Your task to perform on an android device: turn off smart reply in the gmail app Image 0: 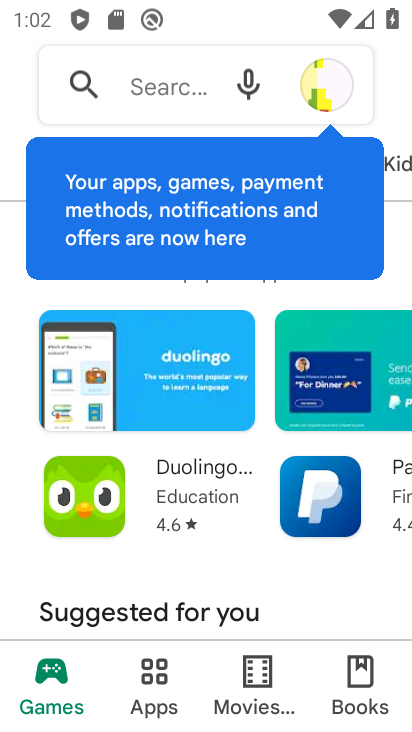
Step 0: press home button
Your task to perform on an android device: turn off smart reply in the gmail app Image 1: 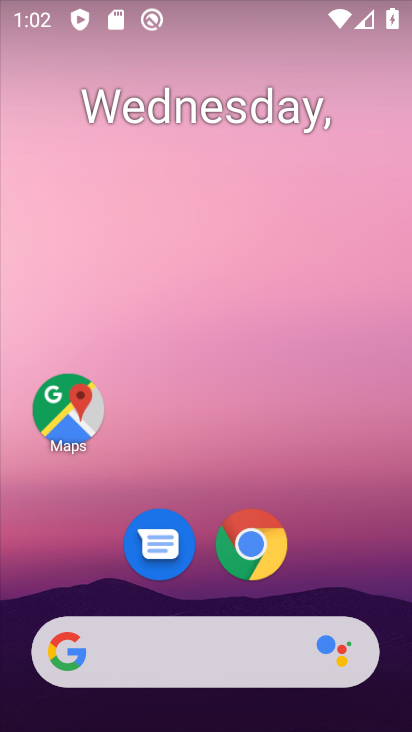
Step 1: drag from (339, 573) to (308, 6)
Your task to perform on an android device: turn off smart reply in the gmail app Image 2: 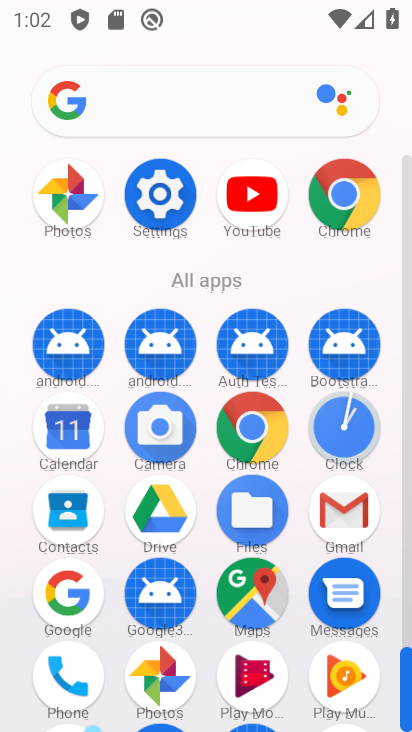
Step 2: click (341, 514)
Your task to perform on an android device: turn off smart reply in the gmail app Image 3: 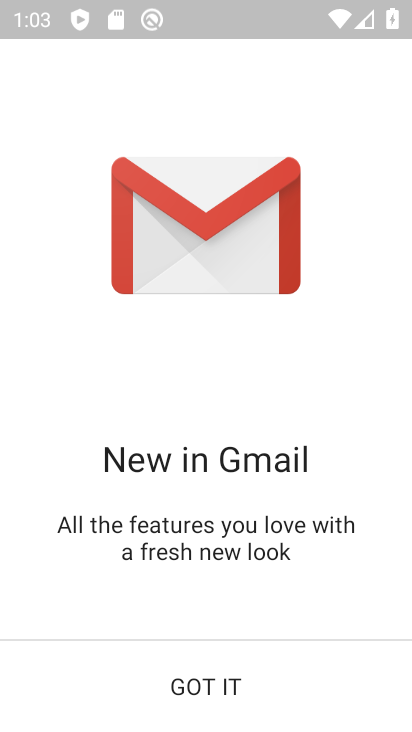
Step 3: click (114, 690)
Your task to perform on an android device: turn off smart reply in the gmail app Image 4: 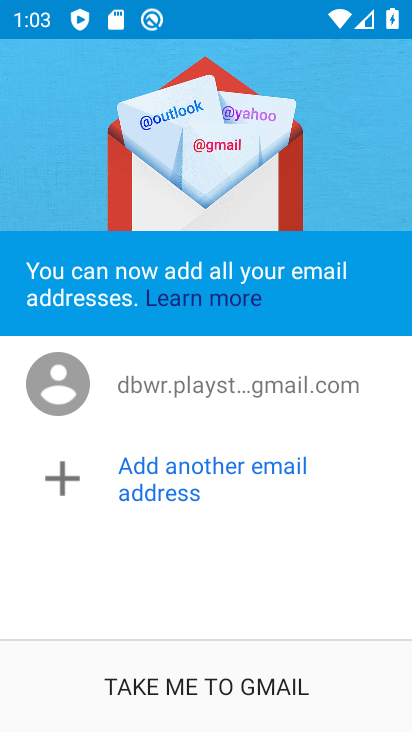
Step 4: click (123, 693)
Your task to perform on an android device: turn off smart reply in the gmail app Image 5: 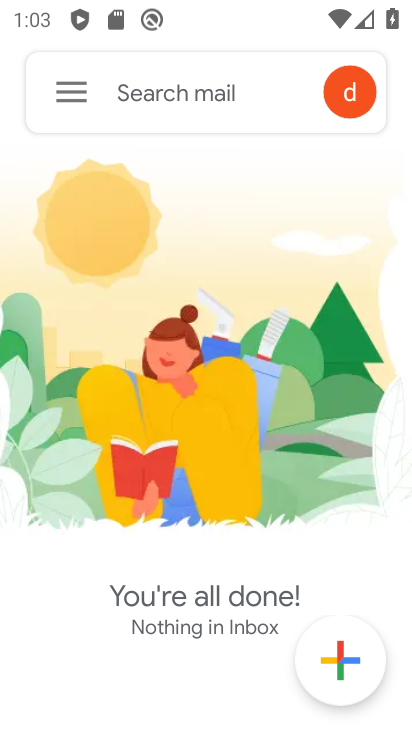
Step 5: click (83, 94)
Your task to perform on an android device: turn off smart reply in the gmail app Image 6: 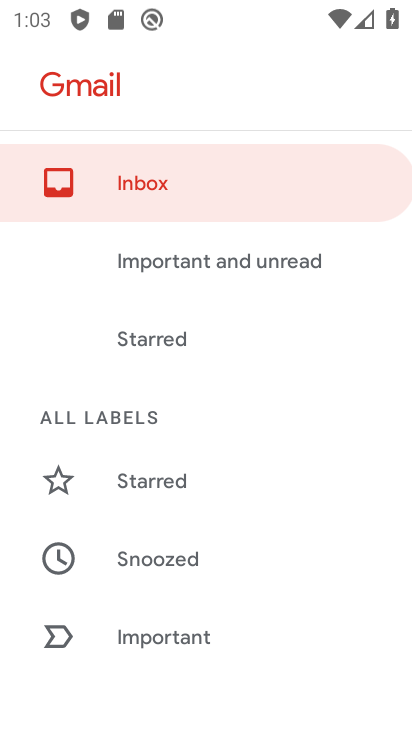
Step 6: drag from (161, 620) to (190, 198)
Your task to perform on an android device: turn off smart reply in the gmail app Image 7: 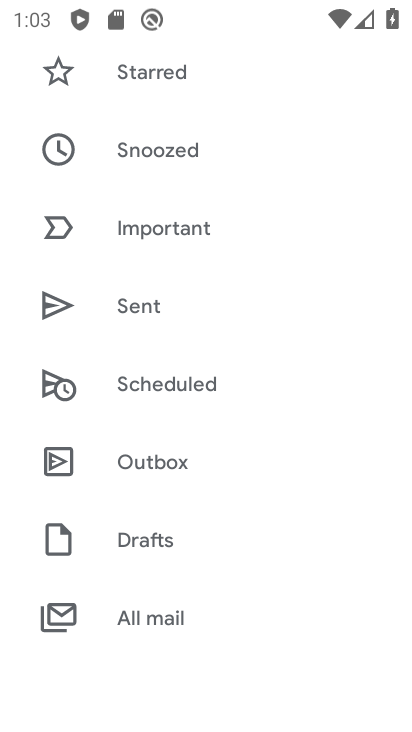
Step 7: drag from (180, 587) to (197, 268)
Your task to perform on an android device: turn off smart reply in the gmail app Image 8: 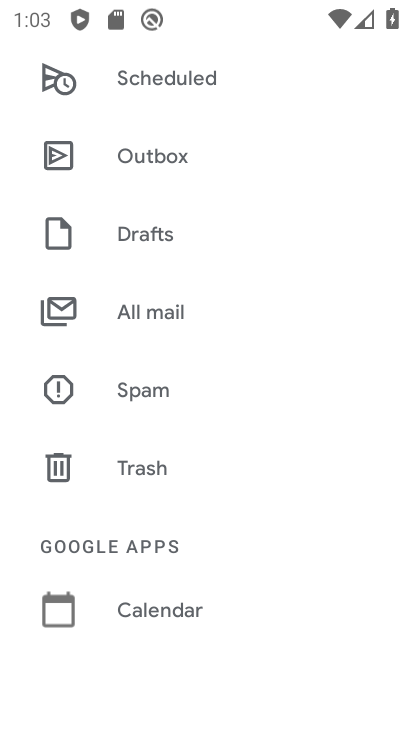
Step 8: drag from (183, 595) to (201, 268)
Your task to perform on an android device: turn off smart reply in the gmail app Image 9: 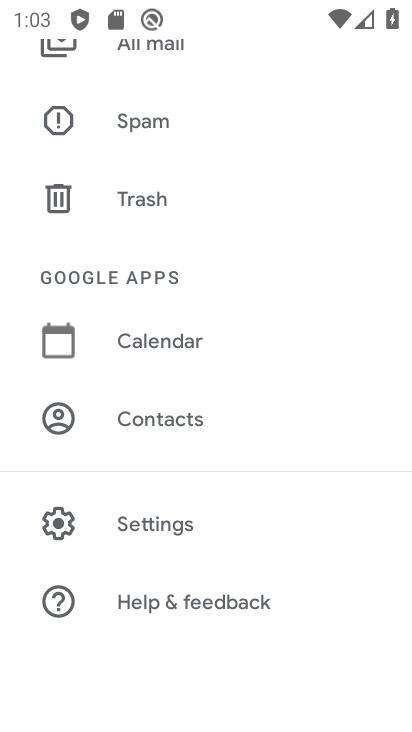
Step 9: click (188, 526)
Your task to perform on an android device: turn off smart reply in the gmail app Image 10: 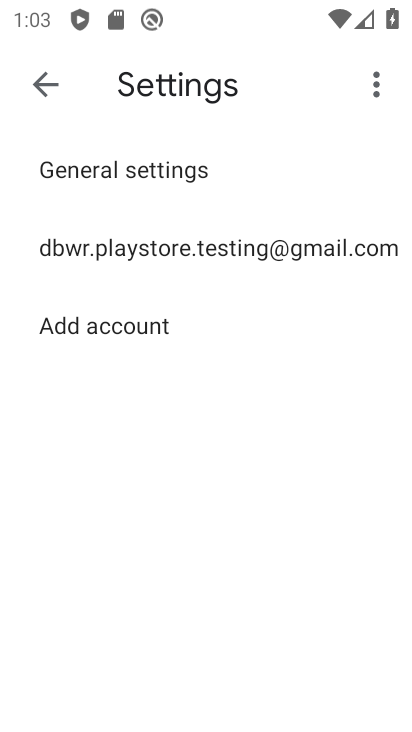
Step 10: click (204, 261)
Your task to perform on an android device: turn off smart reply in the gmail app Image 11: 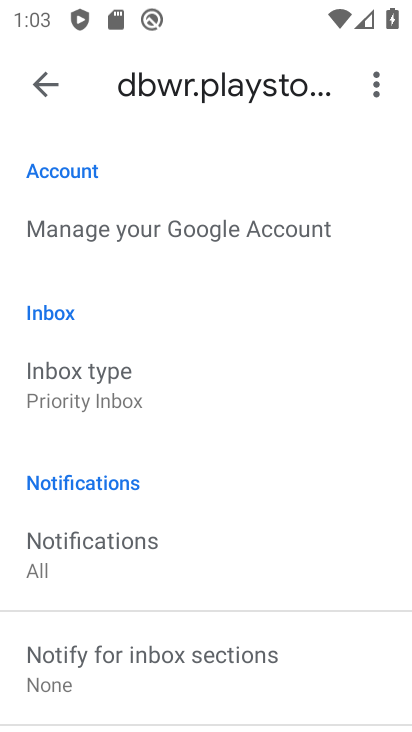
Step 11: drag from (155, 581) to (242, 262)
Your task to perform on an android device: turn off smart reply in the gmail app Image 12: 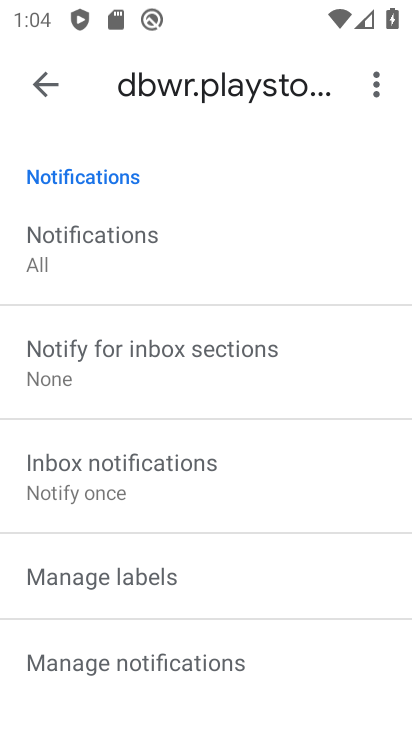
Step 12: drag from (231, 618) to (249, 323)
Your task to perform on an android device: turn off smart reply in the gmail app Image 13: 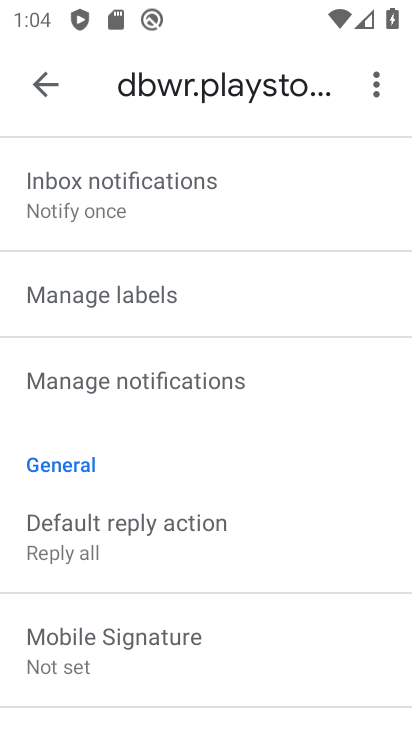
Step 13: drag from (185, 621) to (253, 253)
Your task to perform on an android device: turn off smart reply in the gmail app Image 14: 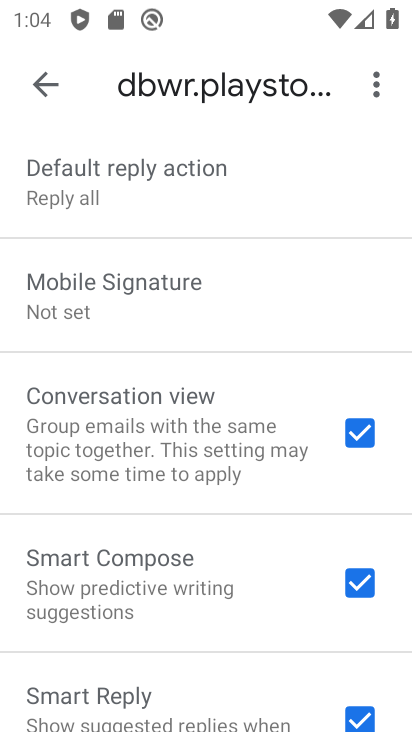
Step 14: drag from (213, 668) to (244, 336)
Your task to perform on an android device: turn off smart reply in the gmail app Image 15: 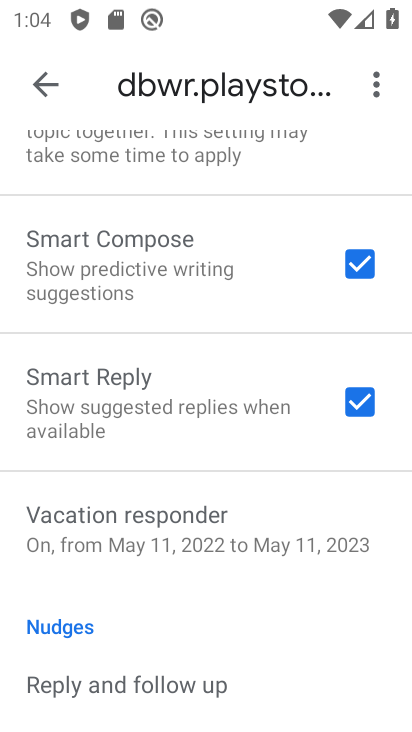
Step 15: click (274, 395)
Your task to perform on an android device: turn off smart reply in the gmail app Image 16: 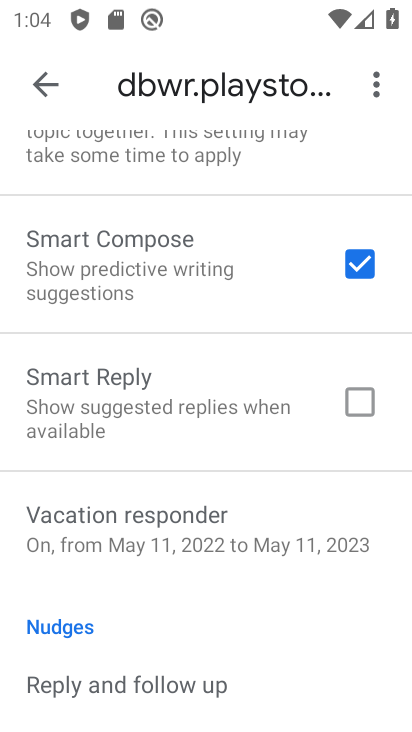
Step 16: task complete